Your task to perform on an android device: turn notification dots off Image 0: 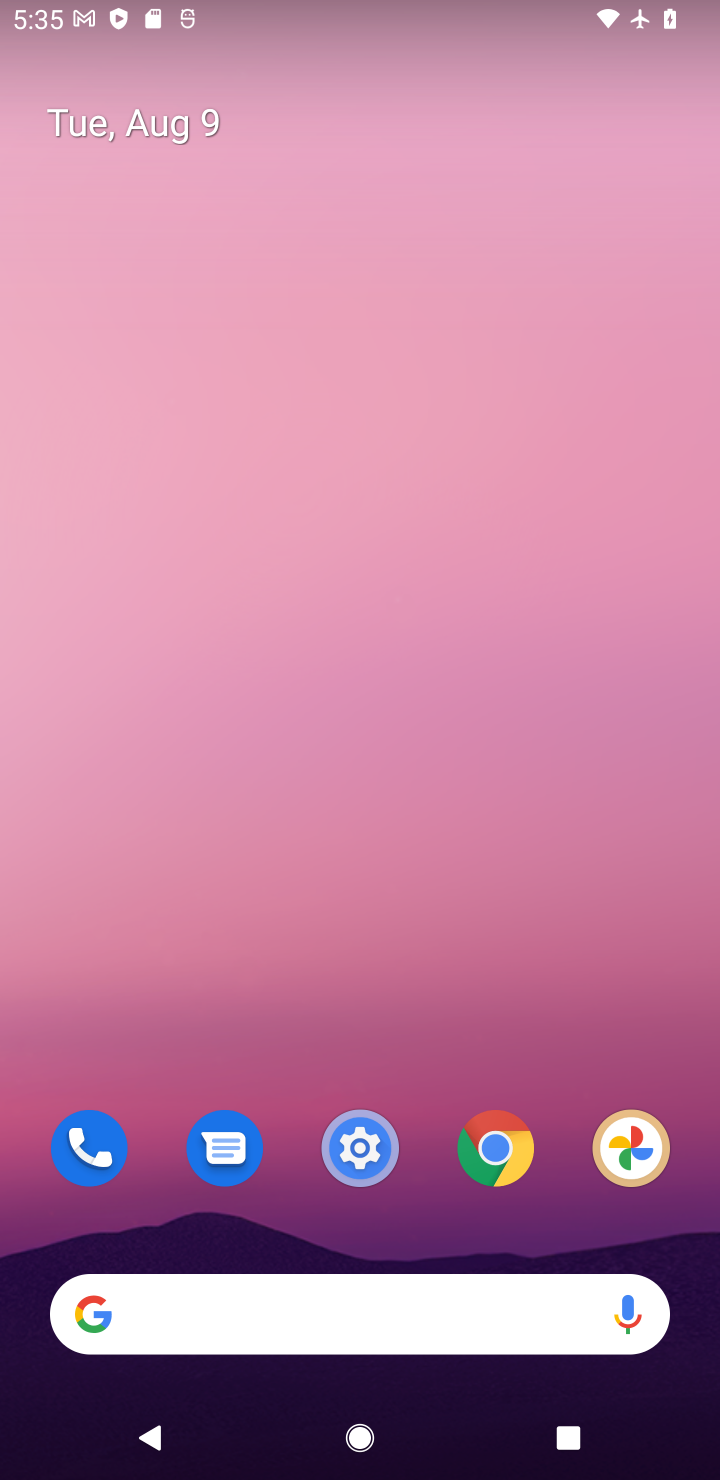
Step 0: click (351, 1173)
Your task to perform on an android device: turn notification dots off Image 1: 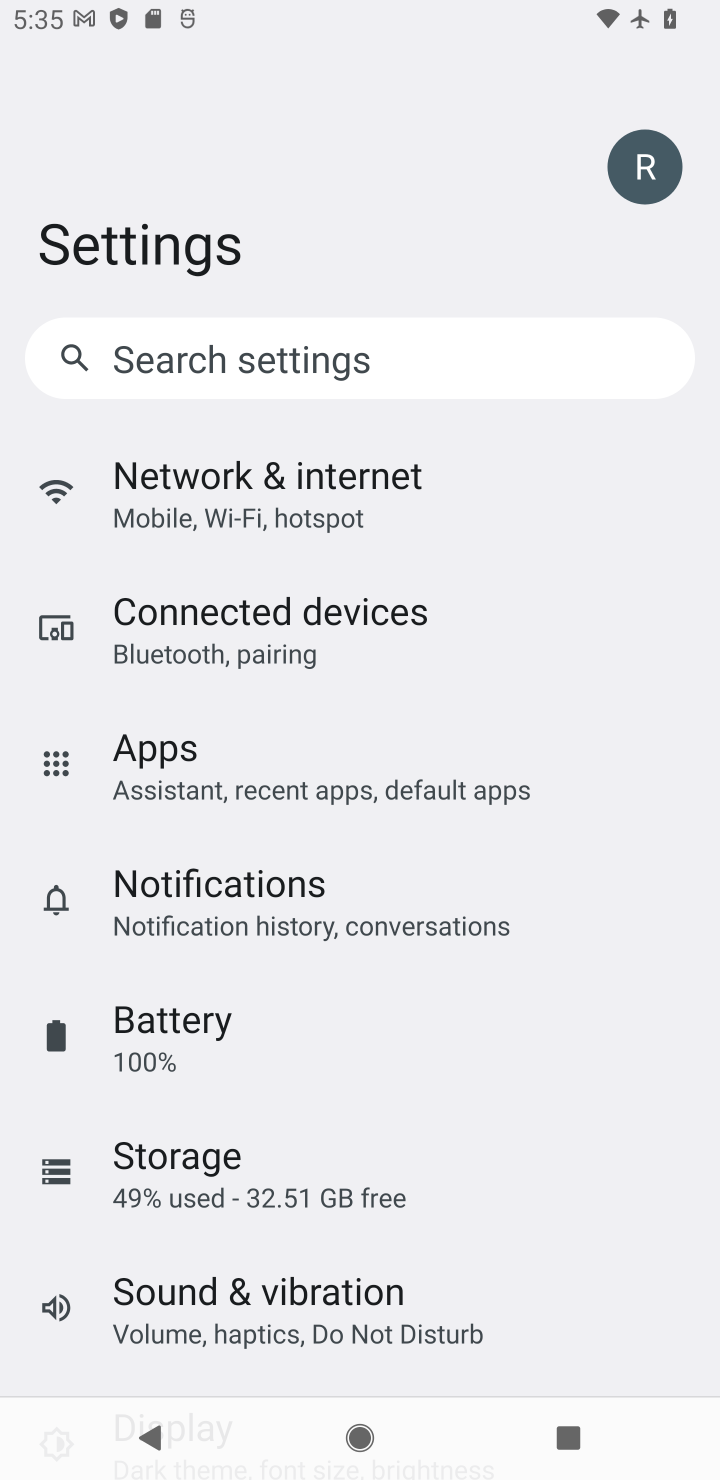
Step 1: click (275, 910)
Your task to perform on an android device: turn notification dots off Image 2: 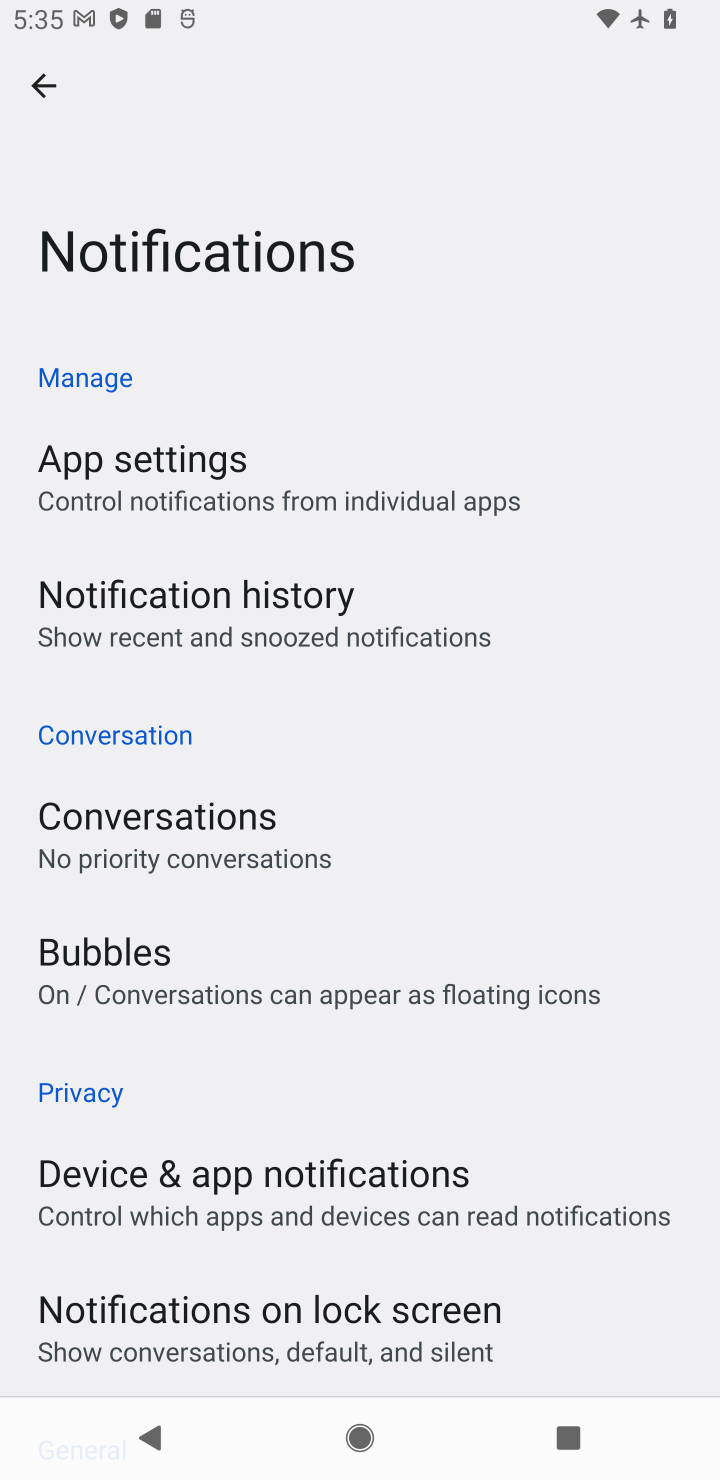
Step 2: drag from (199, 1206) to (374, 21)
Your task to perform on an android device: turn notification dots off Image 3: 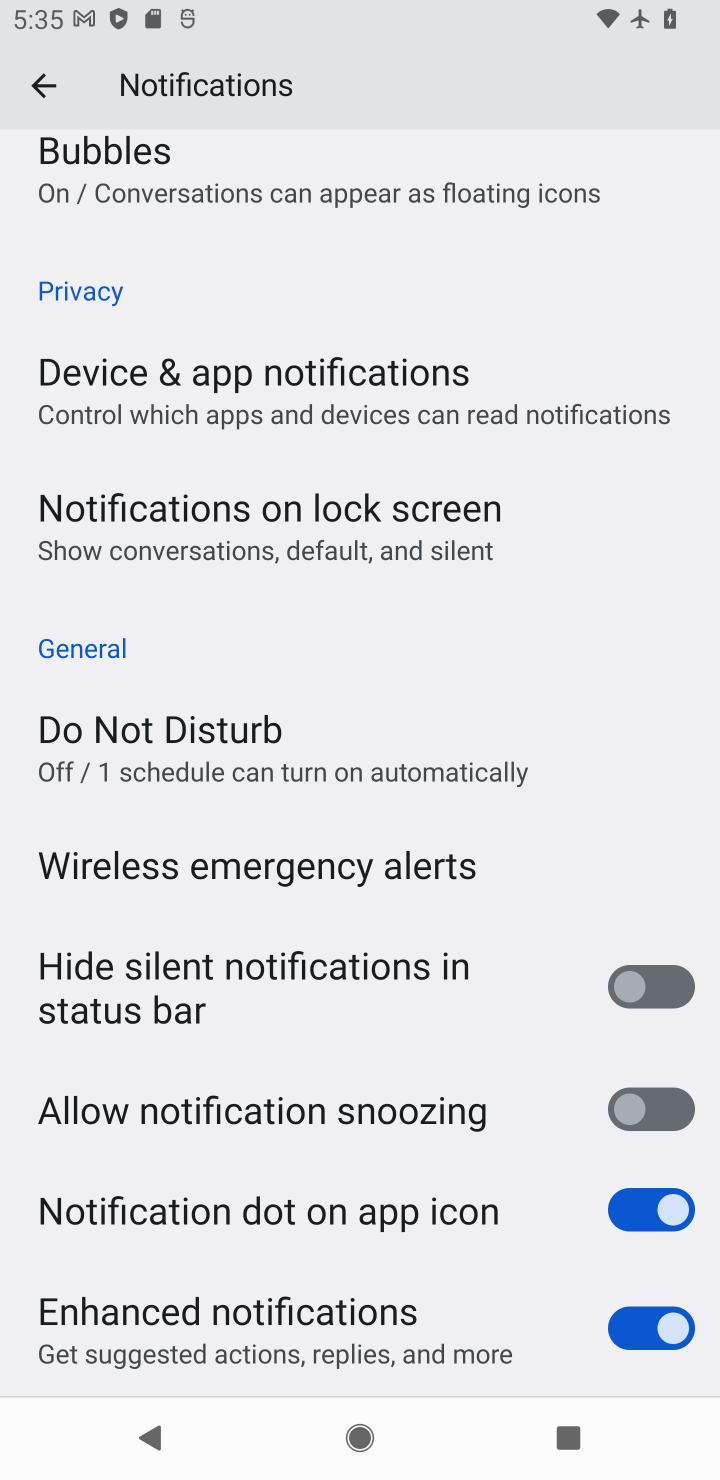
Step 3: click (601, 1217)
Your task to perform on an android device: turn notification dots off Image 4: 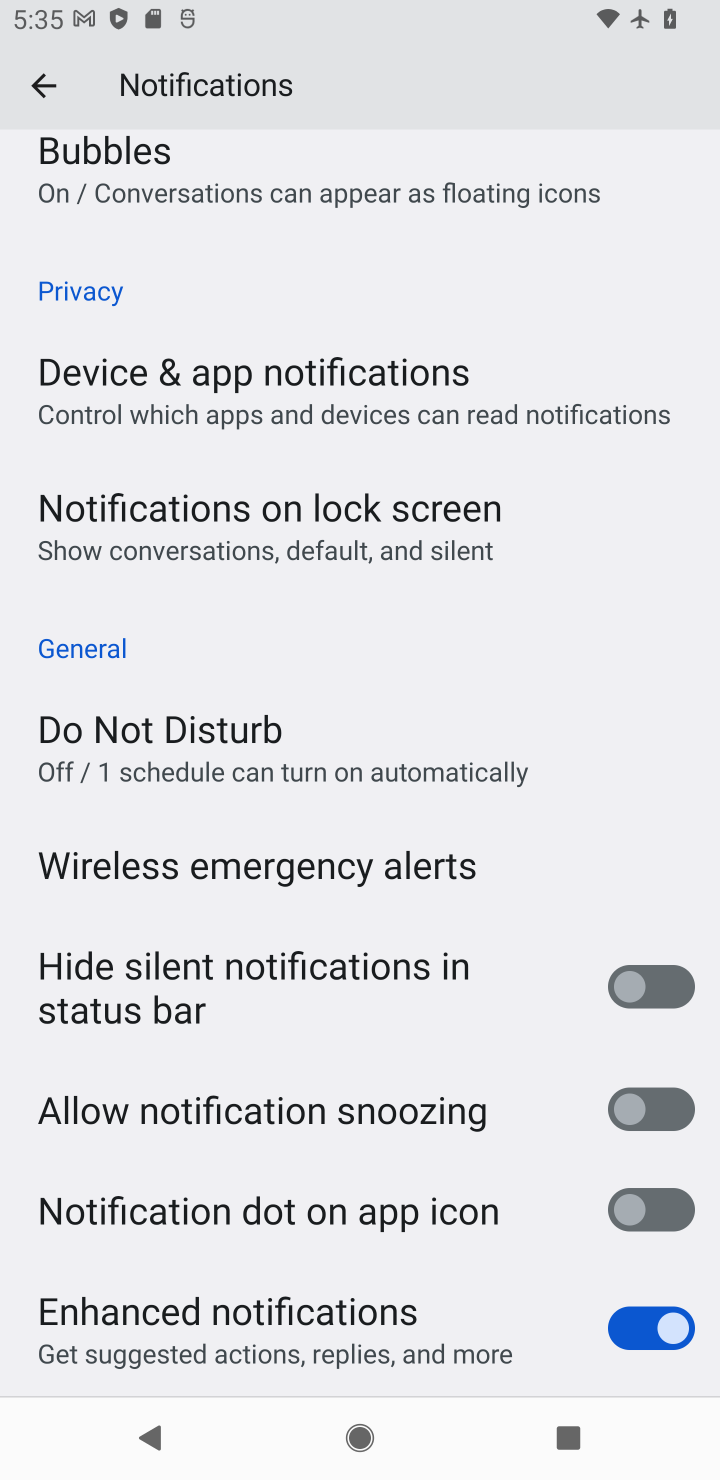
Step 4: task complete